Your task to perform on an android device: Go to notification settings Image 0: 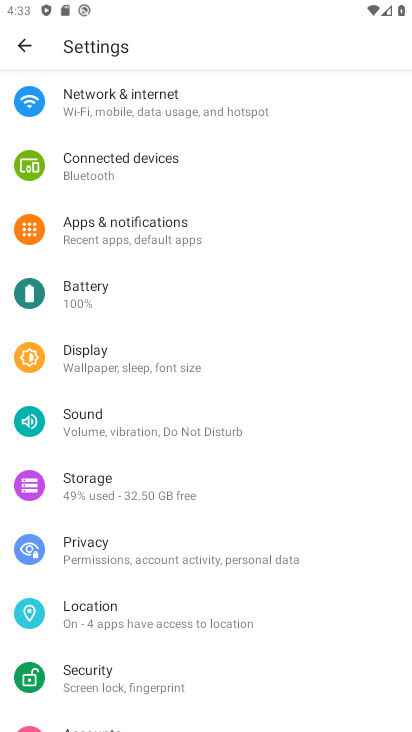
Step 0: press back button
Your task to perform on an android device: Go to notification settings Image 1: 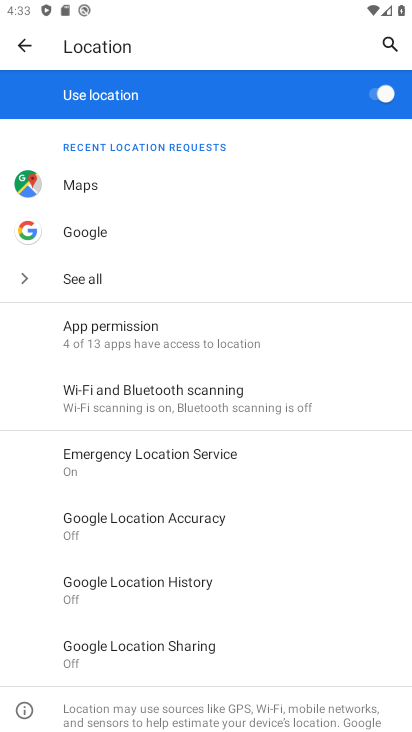
Step 1: press back button
Your task to perform on an android device: Go to notification settings Image 2: 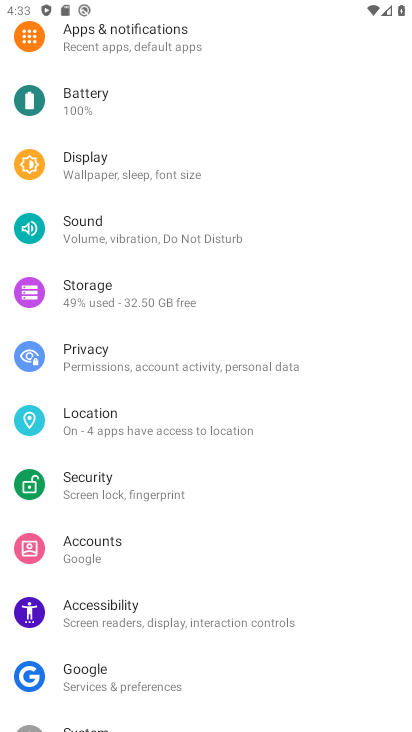
Step 2: press back button
Your task to perform on an android device: Go to notification settings Image 3: 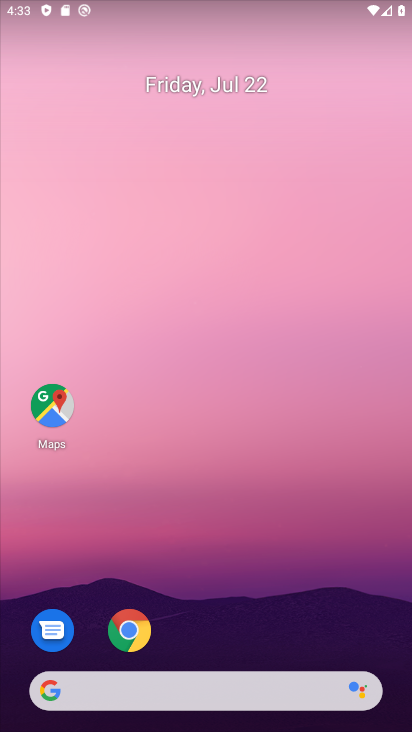
Step 3: drag from (176, 534) to (195, 182)
Your task to perform on an android device: Go to notification settings Image 4: 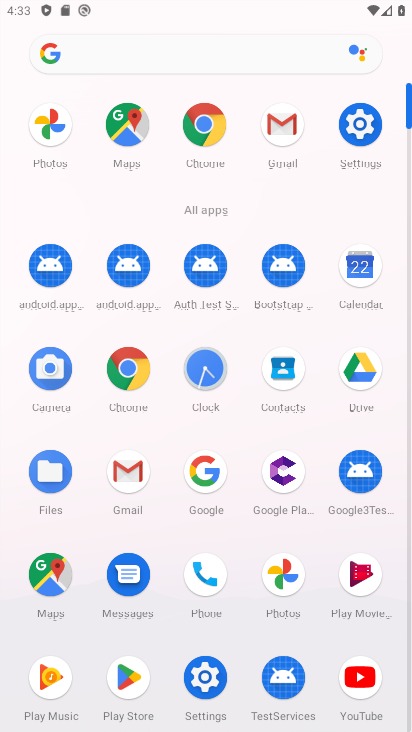
Step 4: click (353, 129)
Your task to perform on an android device: Go to notification settings Image 5: 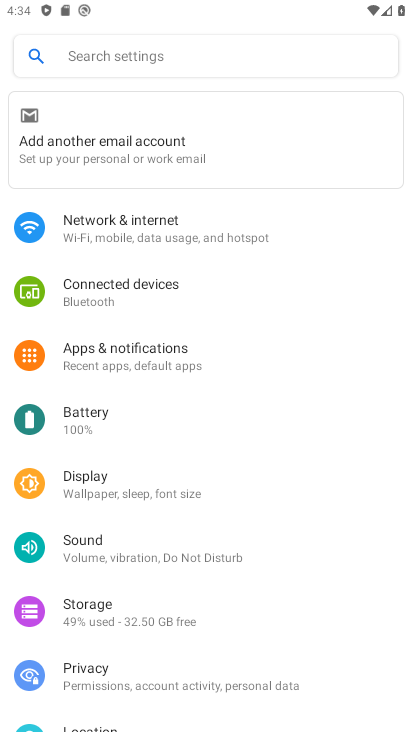
Step 5: click (98, 358)
Your task to perform on an android device: Go to notification settings Image 6: 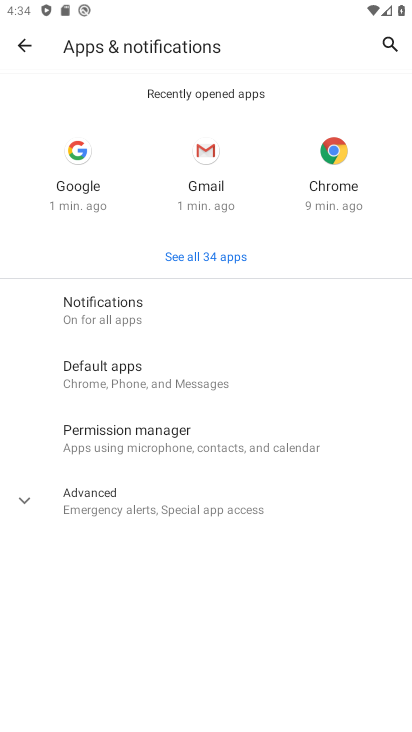
Step 6: task complete